Your task to perform on an android device: toggle wifi Image 0: 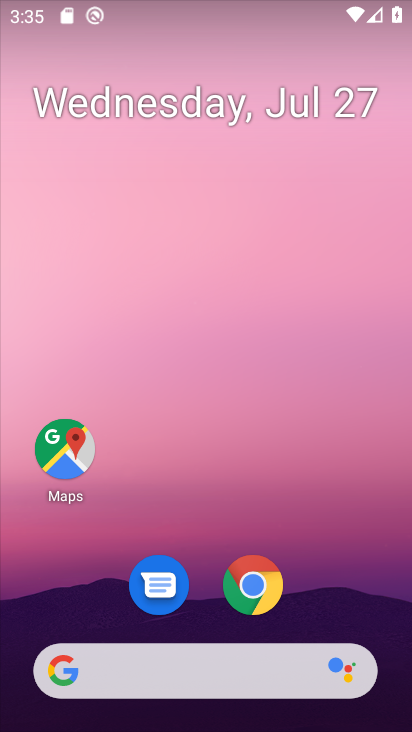
Step 0: drag from (359, 590) to (385, 62)
Your task to perform on an android device: toggle wifi Image 1: 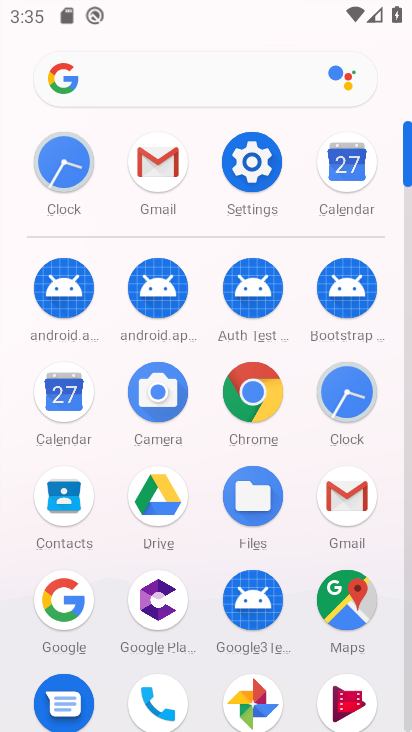
Step 1: click (261, 164)
Your task to perform on an android device: toggle wifi Image 2: 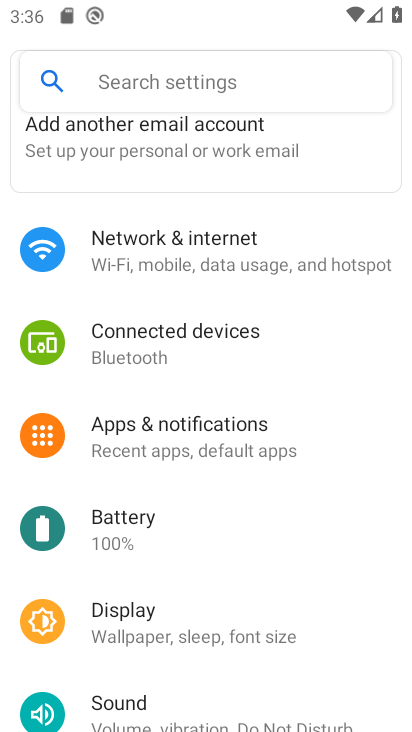
Step 2: drag from (236, 408) to (203, 612)
Your task to perform on an android device: toggle wifi Image 3: 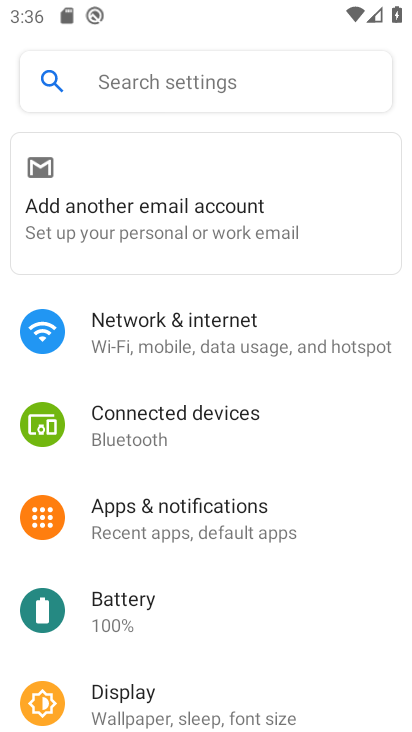
Step 3: click (223, 332)
Your task to perform on an android device: toggle wifi Image 4: 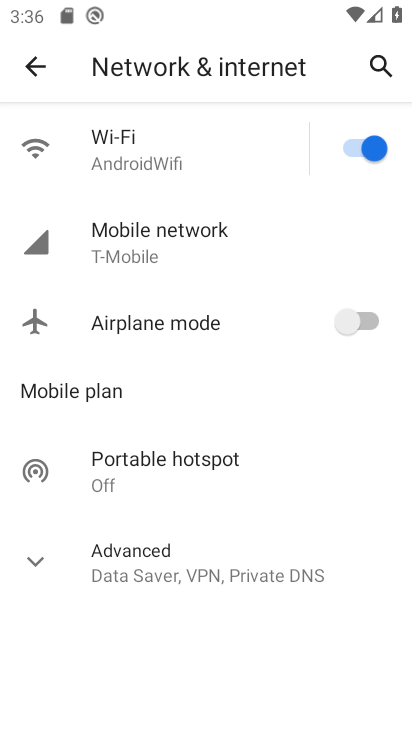
Step 4: task complete